Your task to perform on an android device: uninstall "Booking.com: Hotels and more" Image 0: 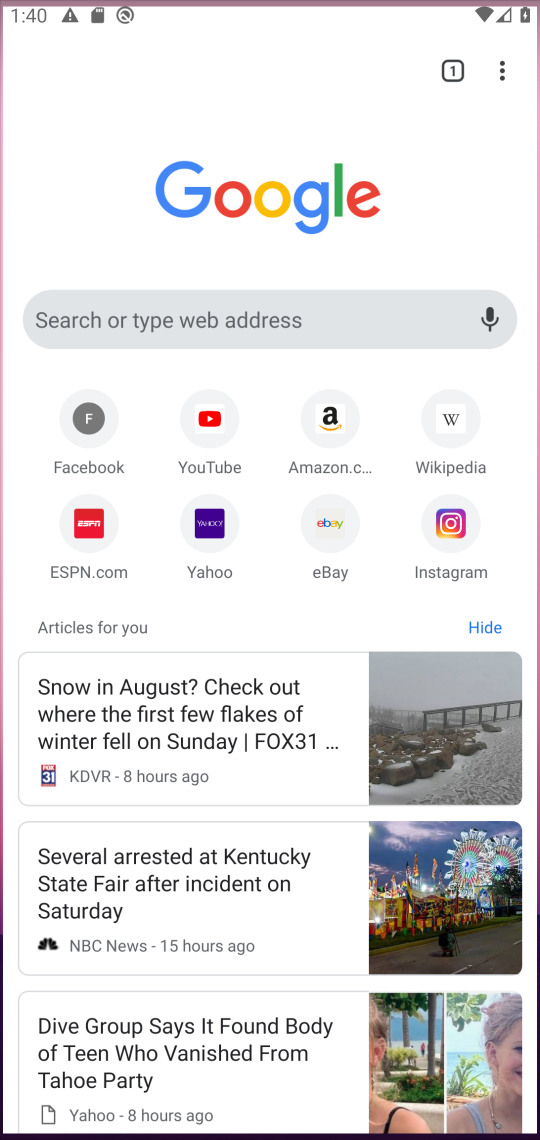
Step 0: press home button
Your task to perform on an android device: uninstall "Booking.com: Hotels and more" Image 1: 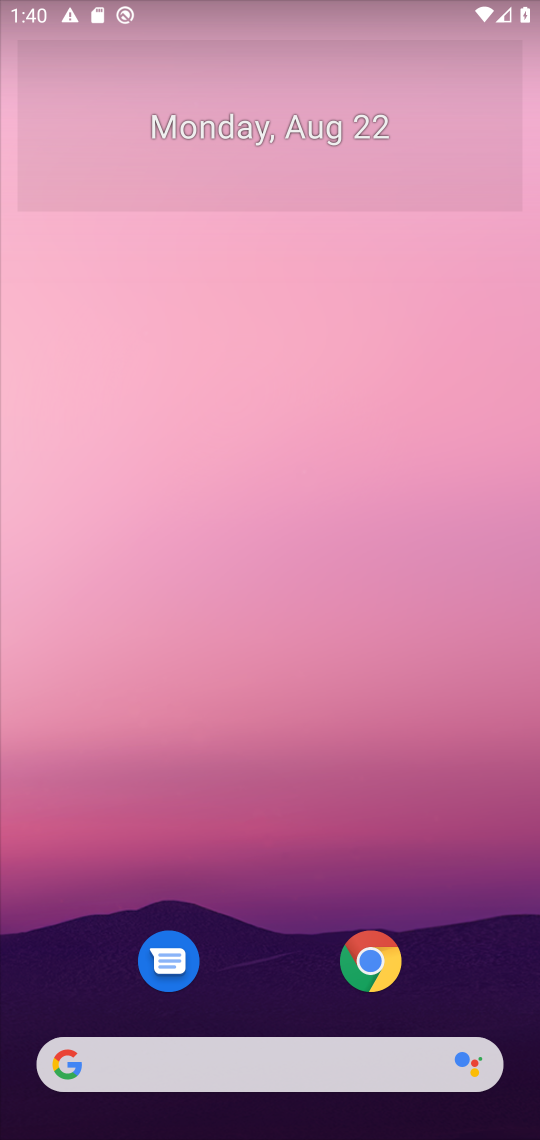
Step 1: press home button
Your task to perform on an android device: uninstall "Booking.com: Hotels and more" Image 2: 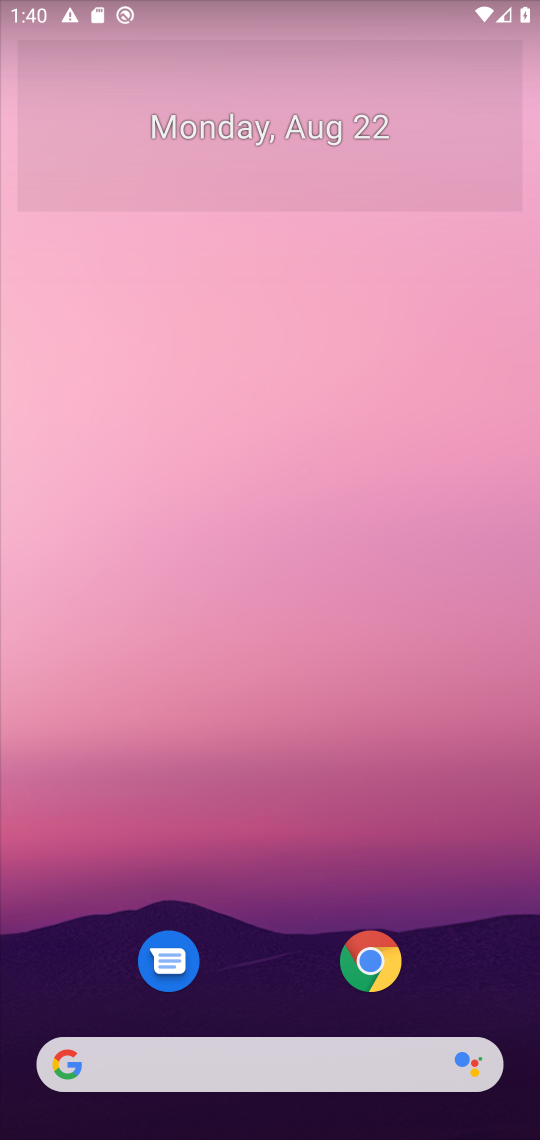
Step 2: drag from (459, 979) to (489, 137)
Your task to perform on an android device: uninstall "Booking.com: Hotels and more" Image 3: 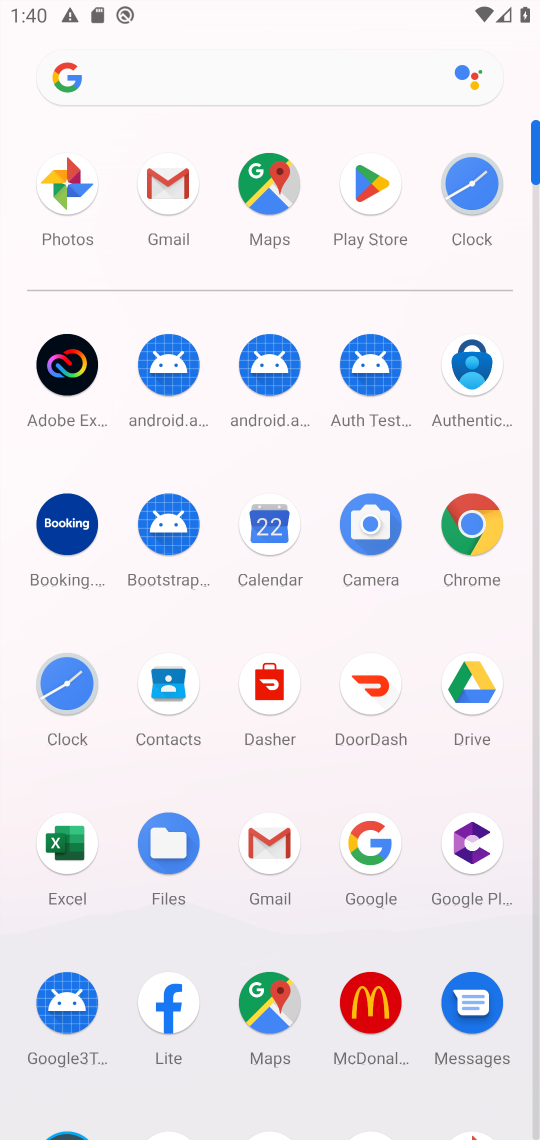
Step 3: click (380, 193)
Your task to perform on an android device: uninstall "Booking.com: Hotels and more" Image 4: 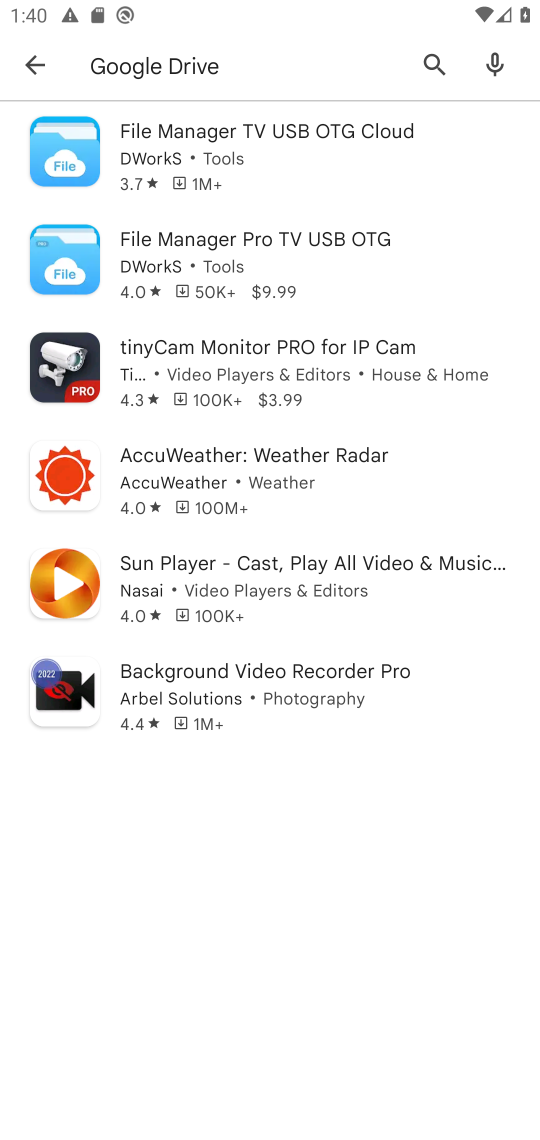
Step 4: press back button
Your task to perform on an android device: uninstall "Booking.com: Hotels and more" Image 5: 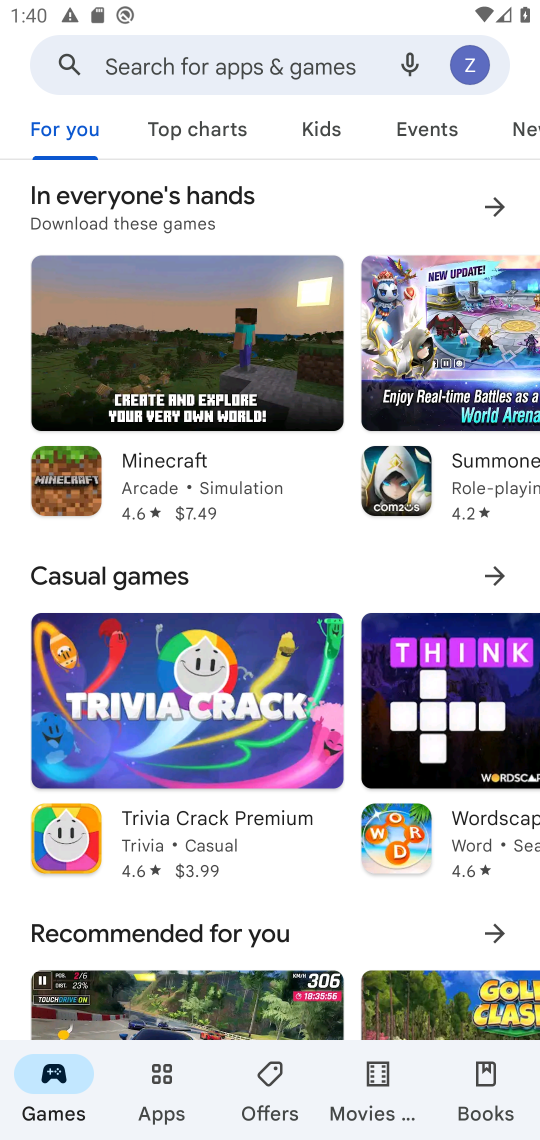
Step 5: click (289, 62)
Your task to perform on an android device: uninstall "Booking.com: Hotels and more" Image 6: 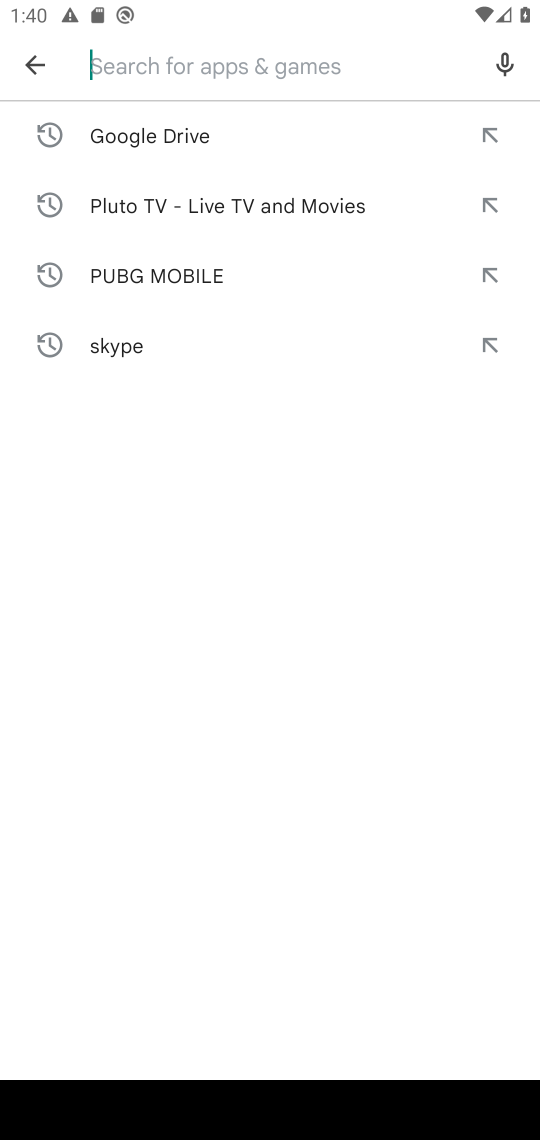
Step 6: type "Booking.com: Hotels and more"
Your task to perform on an android device: uninstall "Booking.com: Hotels and more" Image 7: 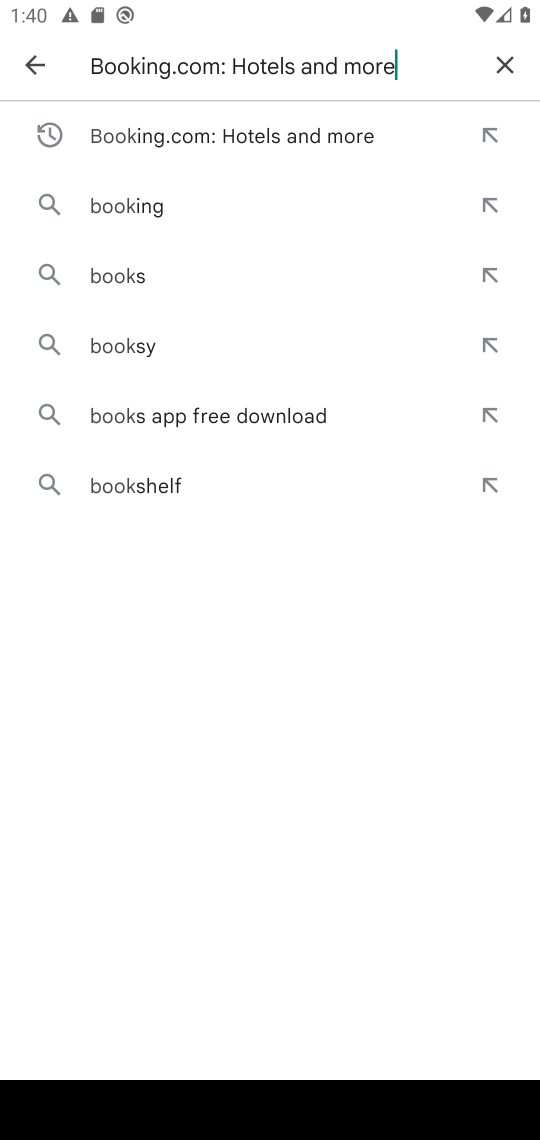
Step 7: press enter
Your task to perform on an android device: uninstall "Booking.com: Hotels and more" Image 8: 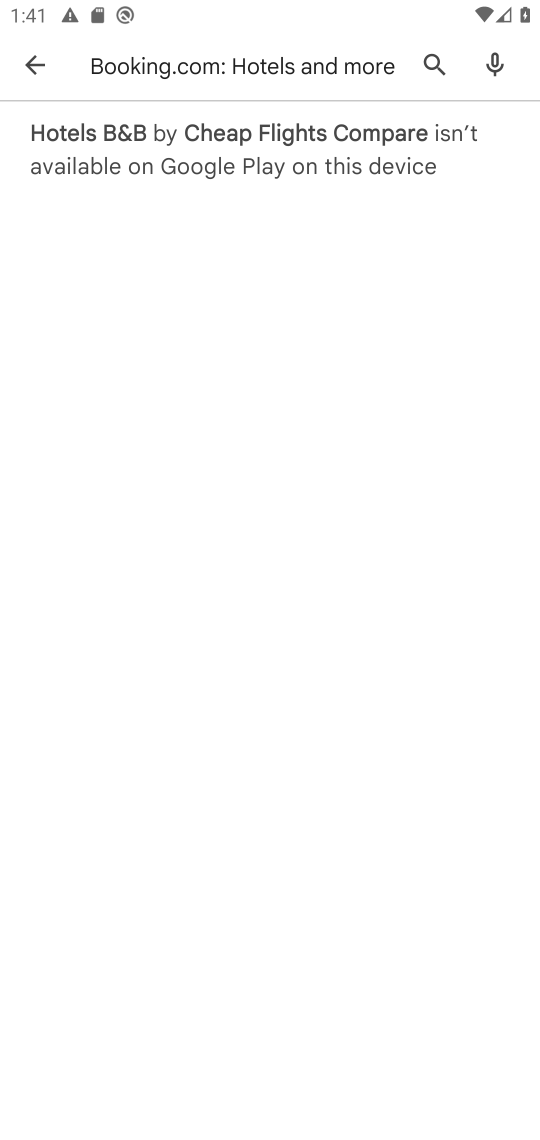
Step 8: task complete